Your task to perform on an android device: Go to accessibility settings Image 0: 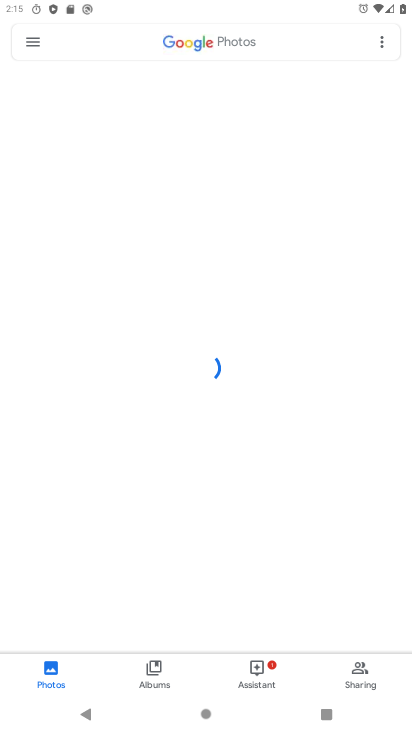
Step 0: press home button
Your task to perform on an android device: Go to accessibility settings Image 1: 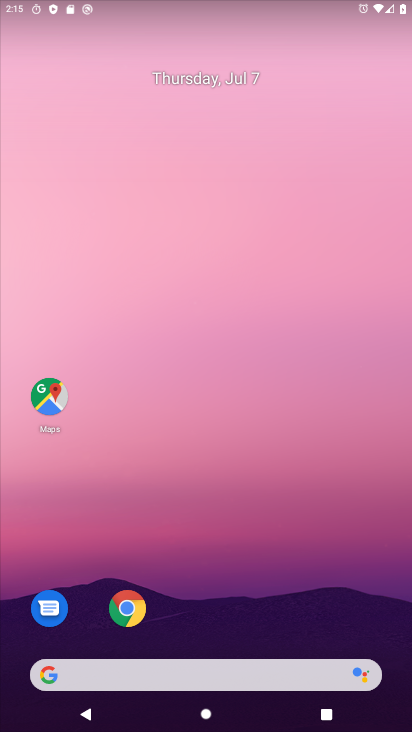
Step 1: drag from (270, 712) to (242, 122)
Your task to perform on an android device: Go to accessibility settings Image 2: 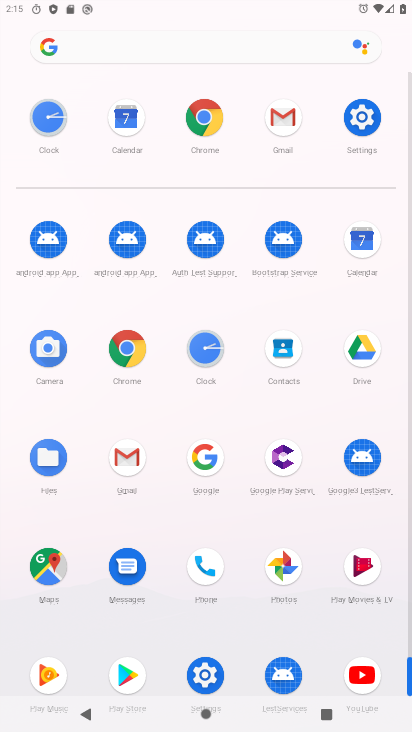
Step 2: click (369, 113)
Your task to perform on an android device: Go to accessibility settings Image 3: 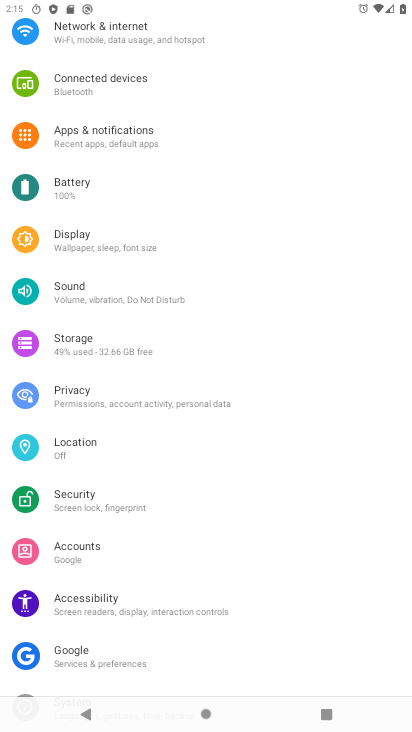
Step 3: click (103, 603)
Your task to perform on an android device: Go to accessibility settings Image 4: 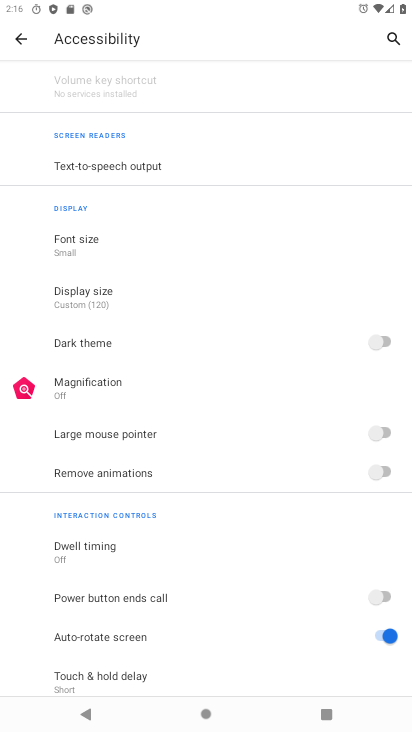
Step 4: task complete